Your task to perform on an android device: toggle notification dots Image 0: 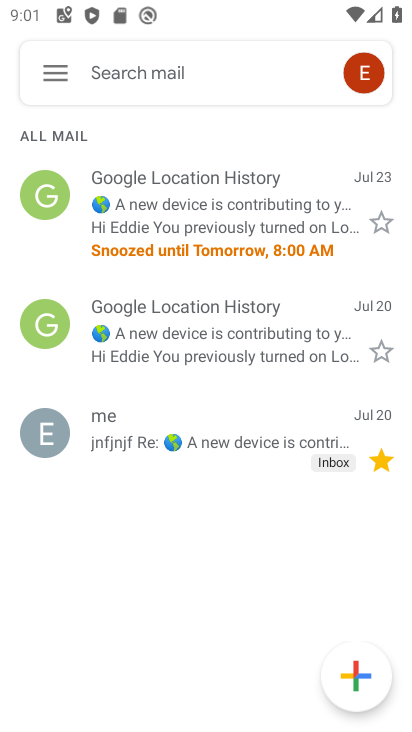
Step 0: press home button
Your task to perform on an android device: toggle notification dots Image 1: 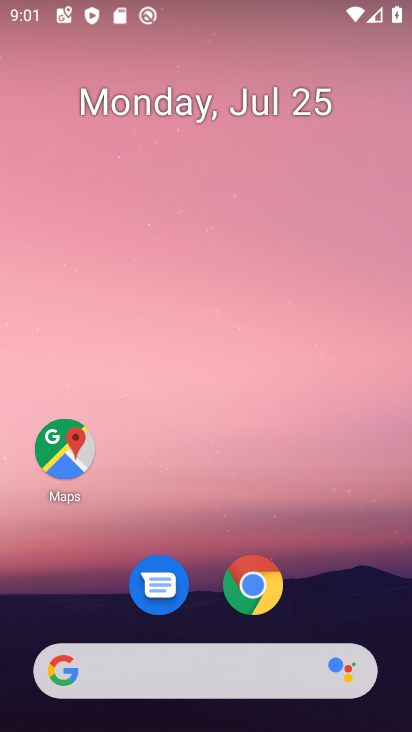
Step 1: drag from (208, 613) to (325, 65)
Your task to perform on an android device: toggle notification dots Image 2: 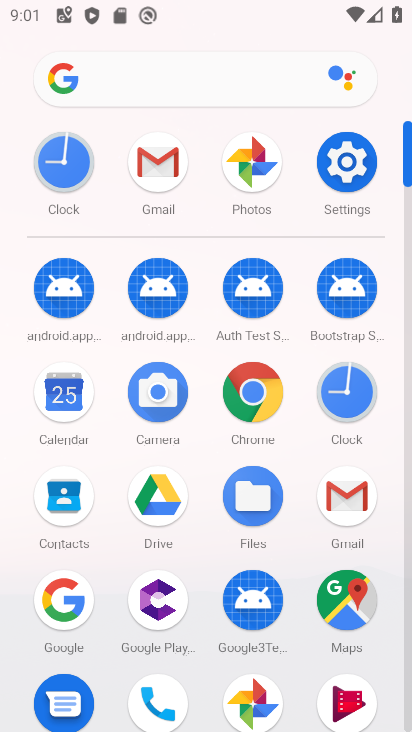
Step 2: click (351, 161)
Your task to perform on an android device: toggle notification dots Image 3: 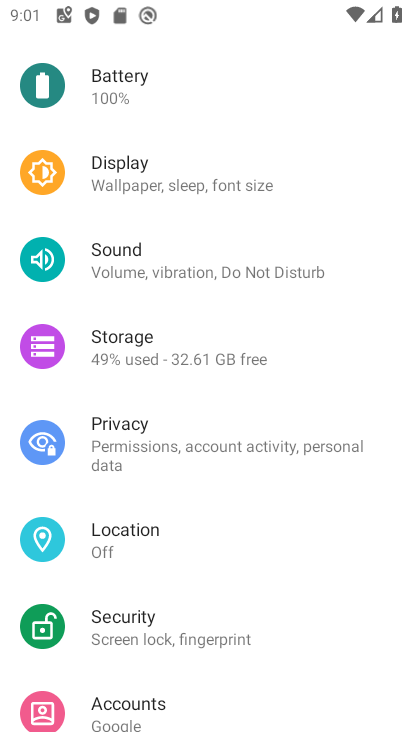
Step 3: drag from (344, 112) to (284, 566)
Your task to perform on an android device: toggle notification dots Image 4: 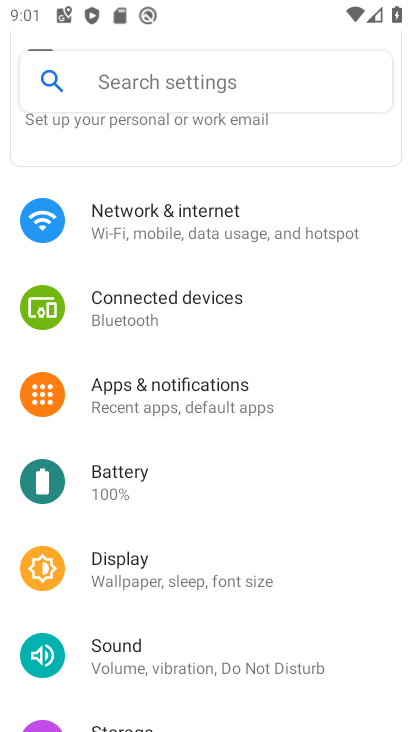
Step 4: click (232, 389)
Your task to perform on an android device: toggle notification dots Image 5: 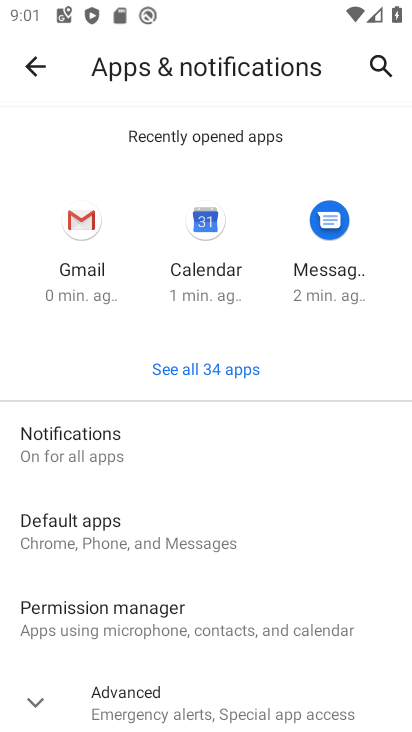
Step 5: click (88, 439)
Your task to perform on an android device: toggle notification dots Image 6: 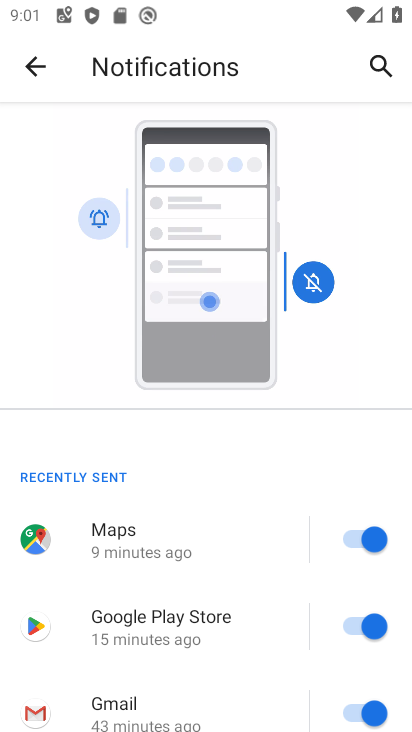
Step 6: drag from (278, 655) to (393, 247)
Your task to perform on an android device: toggle notification dots Image 7: 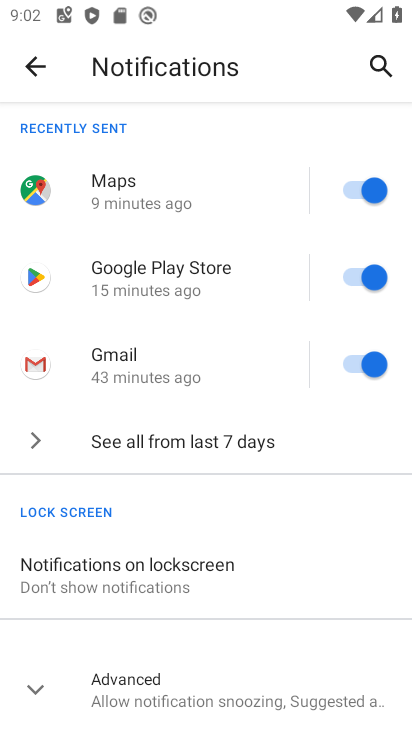
Step 7: click (158, 680)
Your task to perform on an android device: toggle notification dots Image 8: 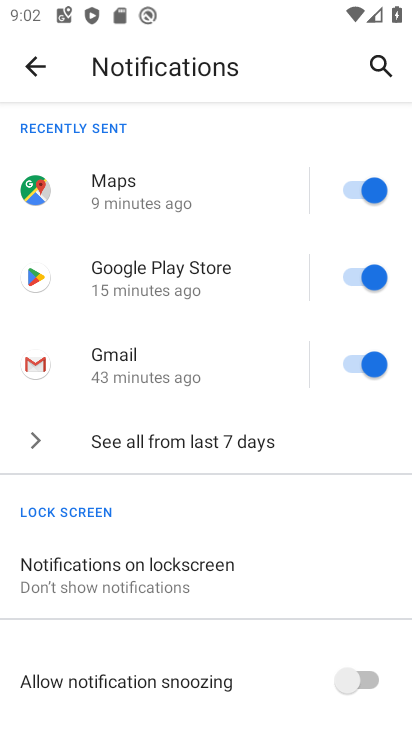
Step 8: drag from (214, 624) to (349, 228)
Your task to perform on an android device: toggle notification dots Image 9: 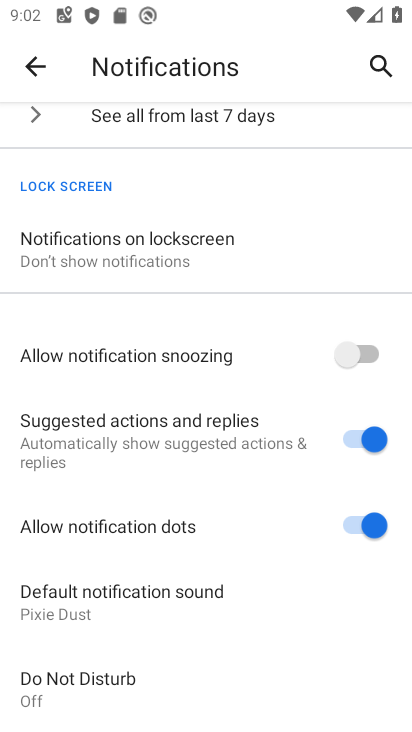
Step 9: click (353, 519)
Your task to perform on an android device: toggle notification dots Image 10: 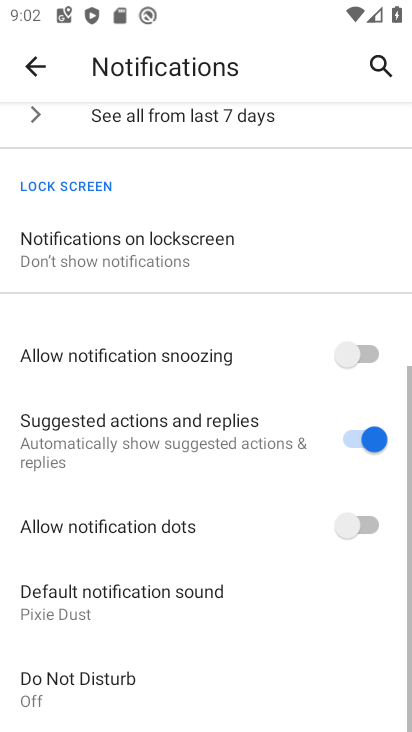
Step 10: task complete